Your task to perform on an android device: turn on improve location accuracy Image 0: 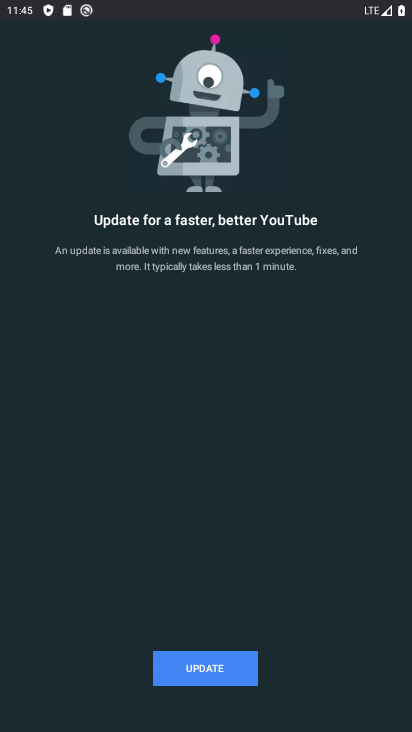
Step 0: press back button
Your task to perform on an android device: turn on improve location accuracy Image 1: 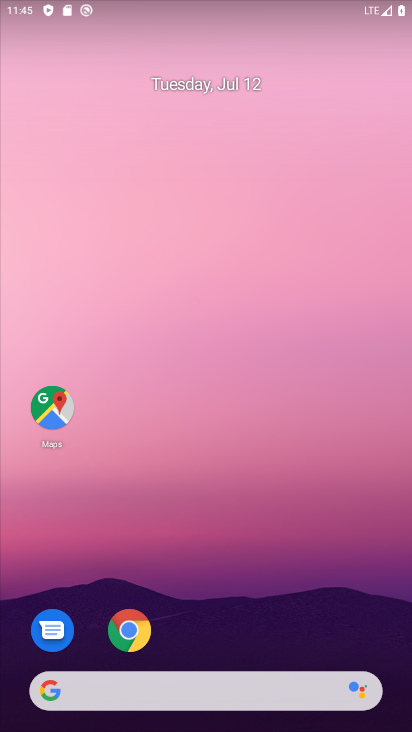
Step 1: drag from (352, 585) to (175, 21)
Your task to perform on an android device: turn on improve location accuracy Image 2: 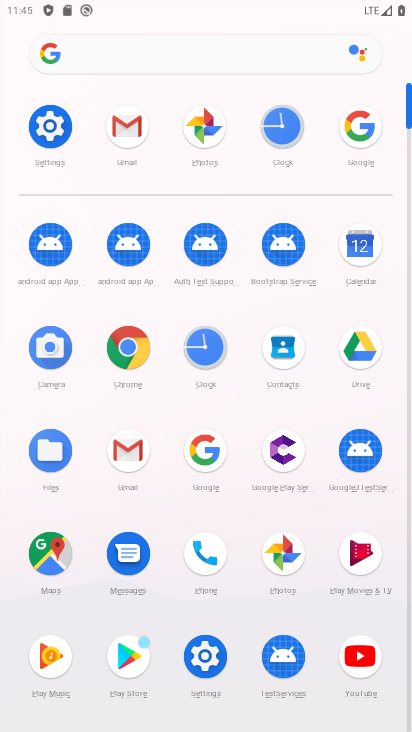
Step 2: click (48, 135)
Your task to perform on an android device: turn on improve location accuracy Image 3: 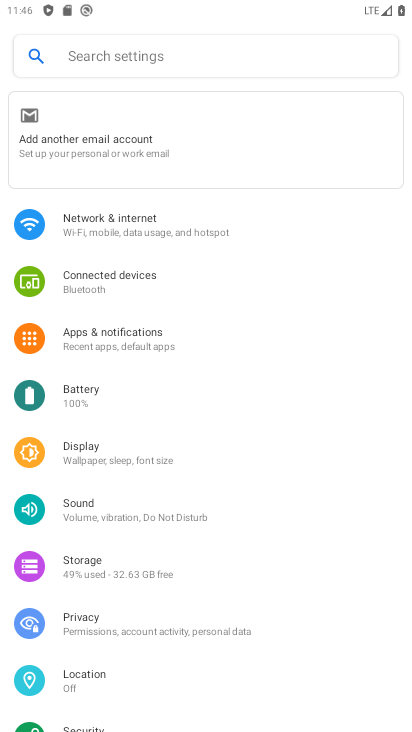
Step 3: click (85, 684)
Your task to perform on an android device: turn on improve location accuracy Image 4: 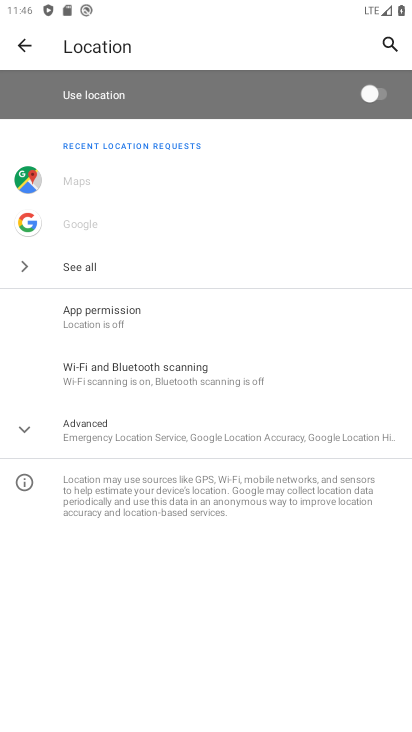
Step 4: click (106, 426)
Your task to perform on an android device: turn on improve location accuracy Image 5: 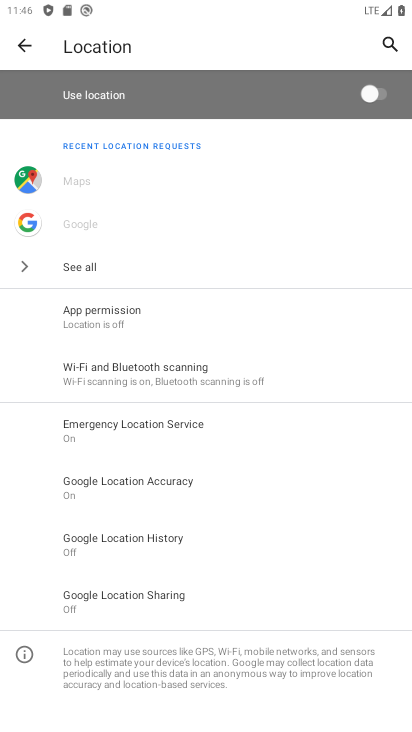
Step 5: click (116, 477)
Your task to perform on an android device: turn on improve location accuracy Image 6: 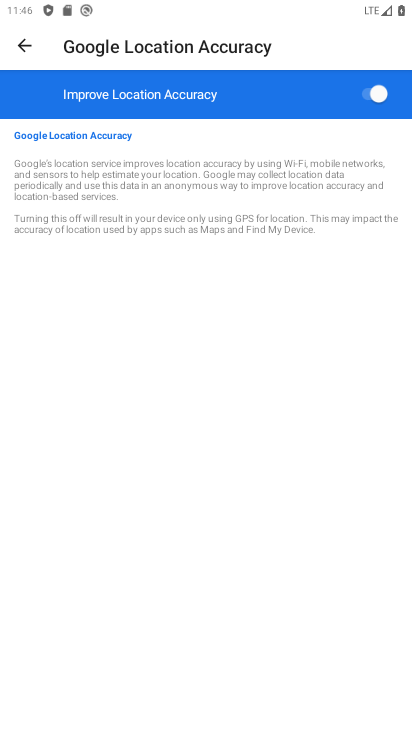
Step 6: task complete